Your task to perform on an android device: Open location settings Image 0: 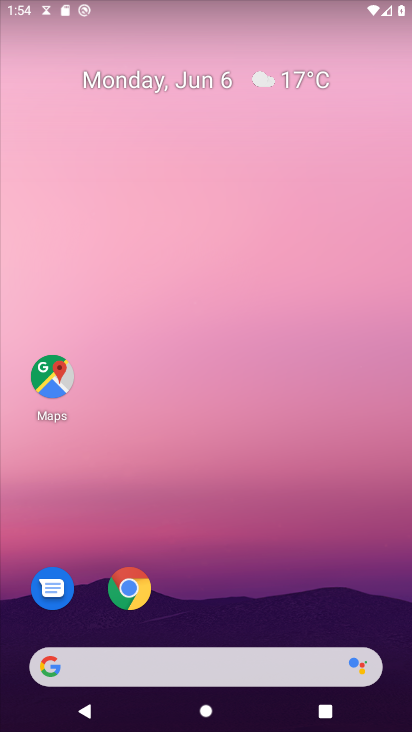
Step 0: drag from (245, 608) to (250, 80)
Your task to perform on an android device: Open location settings Image 1: 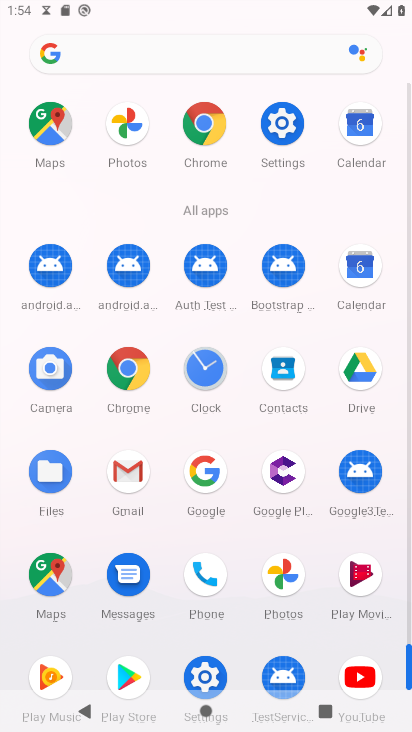
Step 1: click (276, 136)
Your task to perform on an android device: Open location settings Image 2: 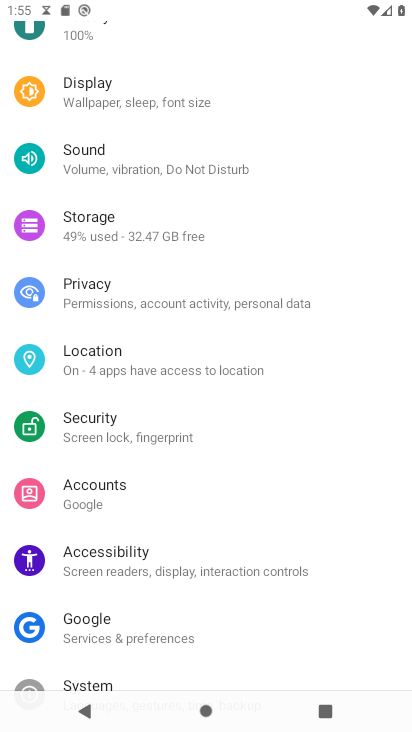
Step 2: click (111, 369)
Your task to perform on an android device: Open location settings Image 3: 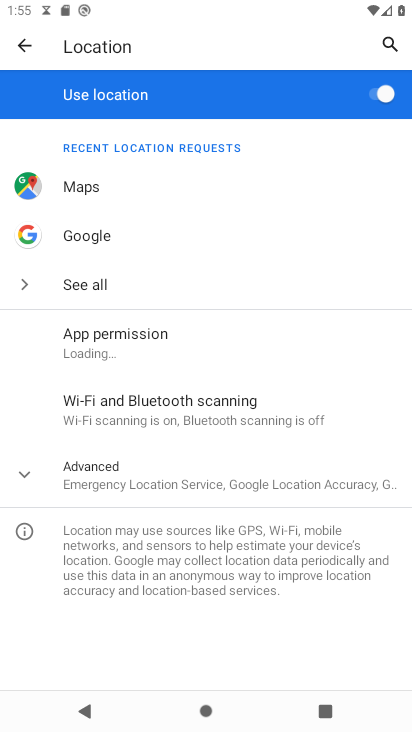
Step 3: task complete